Your task to perform on an android device: Open calendar and show me the second week of next month Image 0: 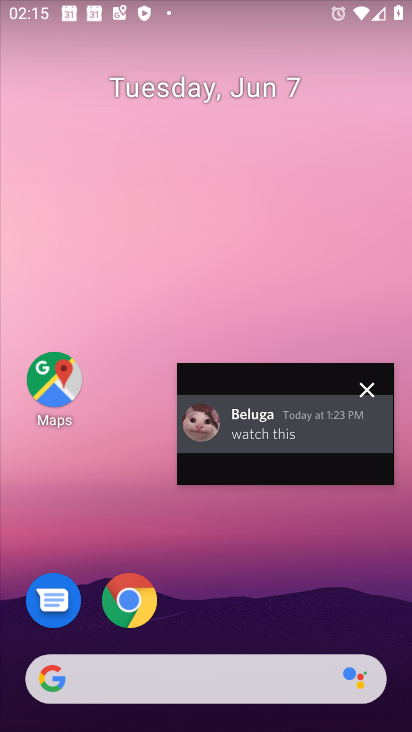
Step 0: click (385, 454)
Your task to perform on an android device: Open calendar and show me the second week of next month Image 1: 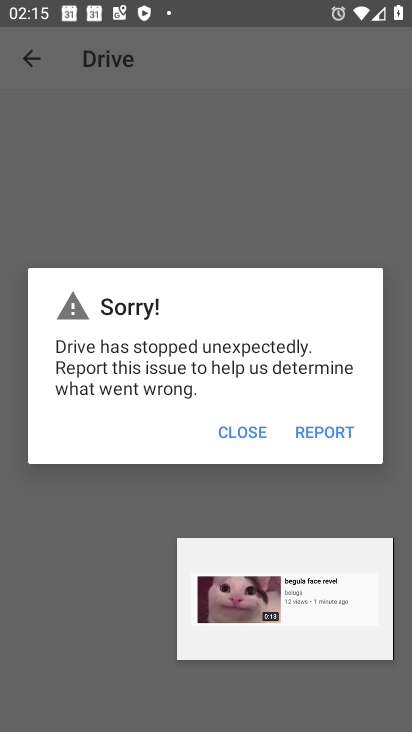
Step 1: click (377, 553)
Your task to perform on an android device: Open calendar and show me the second week of next month Image 2: 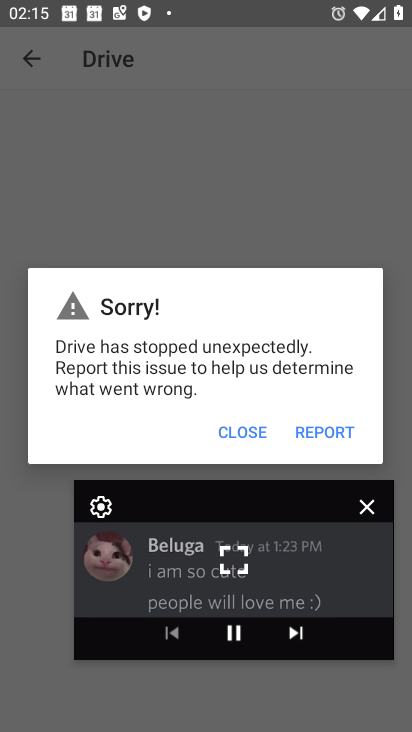
Step 2: click (366, 505)
Your task to perform on an android device: Open calendar and show me the second week of next month Image 3: 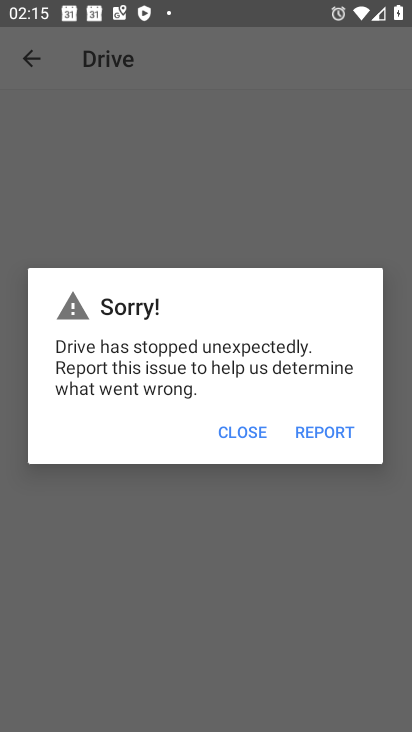
Step 3: press home button
Your task to perform on an android device: Open calendar and show me the second week of next month Image 4: 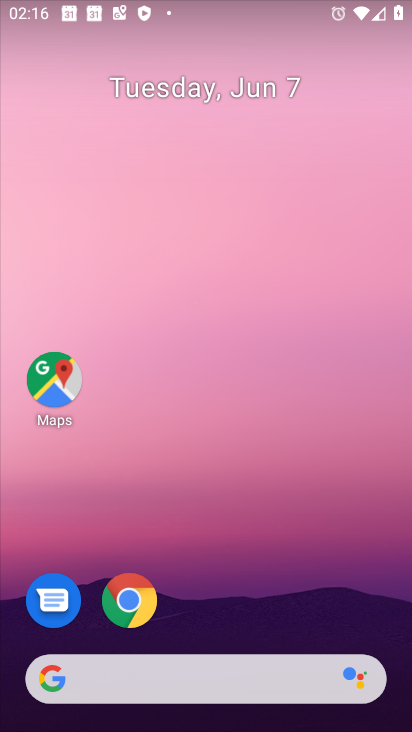
Step 4: drag from (211, 712) to (203, 165)
Your task to perform on an android device: Open calendar and show me the second week of next month Image 5: 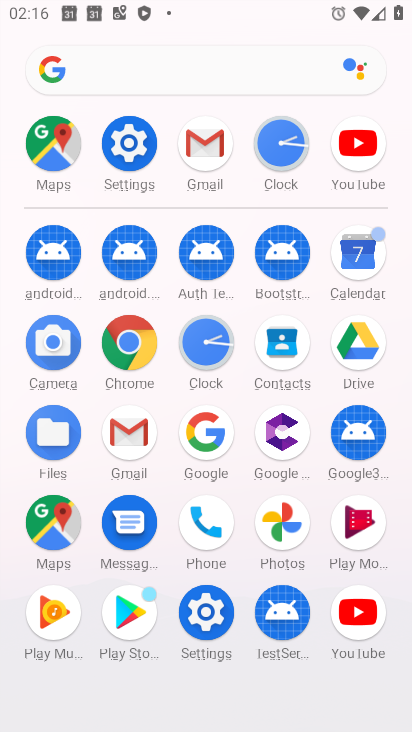
Step 5: click (355, 258)
Your task to perform on an android device: Open calendar and show me the second week of next month Image 6: 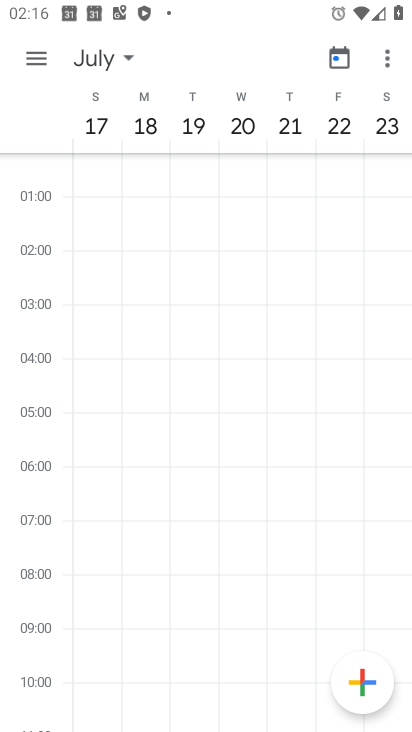
Step 6: click (130, 58)
Your task to perform on an android device: Open calendar and show me the second week of next month Image 7: 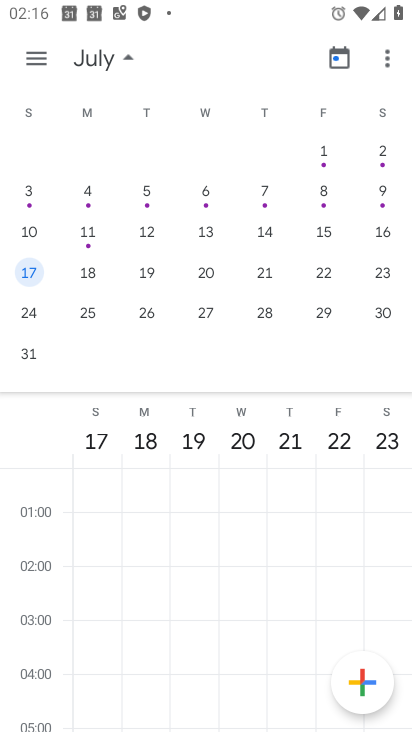
Step 7: click (86, 228)
Your task to perform on an android device: Open calendar and show me the second week of next month Image 8: 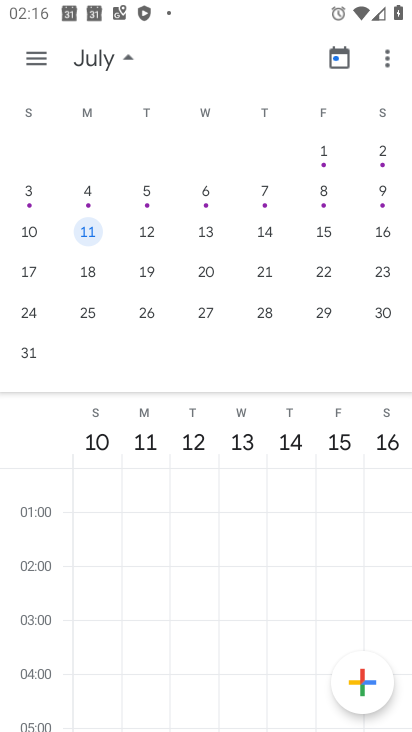
Step 8: click (86, 228)
Your task to perform on an android device: Open calendar and show me the second week of next month Image 9: 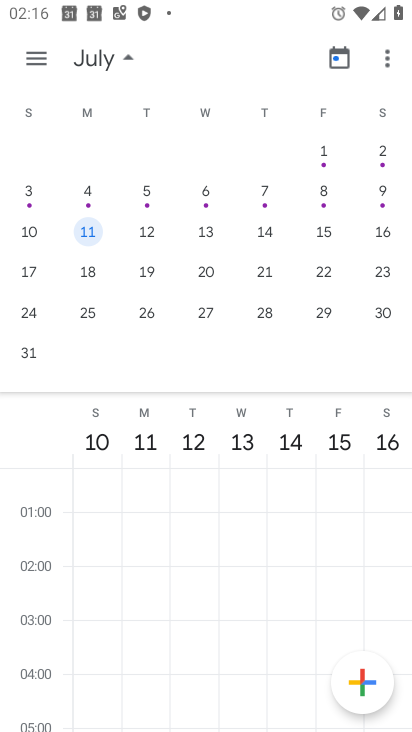
Step 9: click (143, 430)
Your task to perform on an android device: Open calendar and show me the second week of next month Image 10: 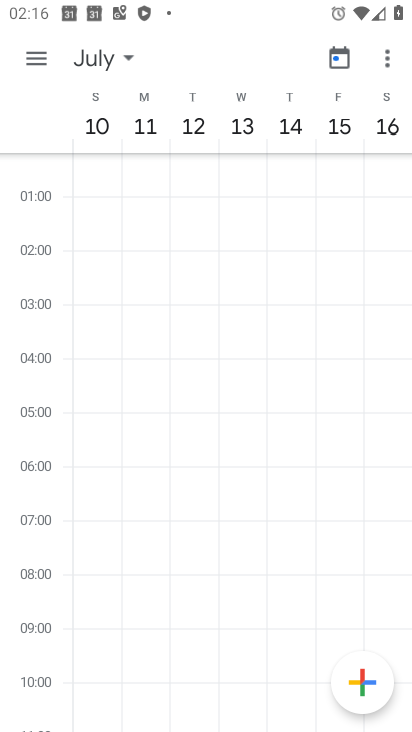
Step 10: click (143, 118)
Your task to perform on an android device: Open calendar and show me the second week of next month Image 11: 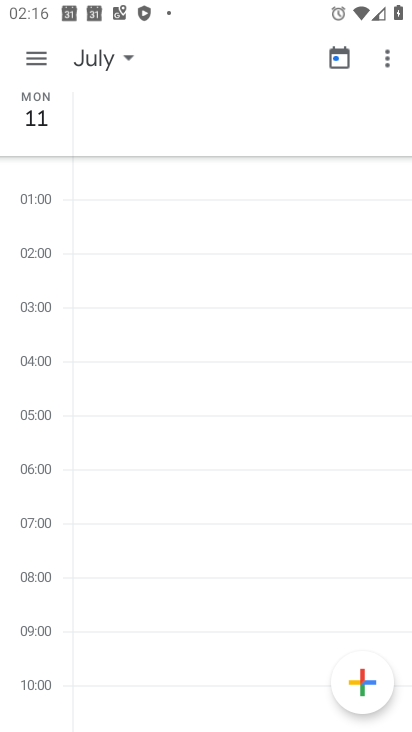
Step 11: task complete